Your task to perform on an android device: set an alarm Image 0: 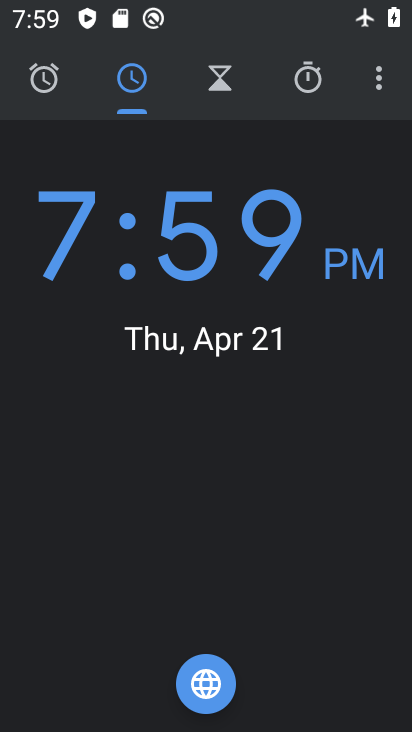
Step 0: click (31, 91)
Your task to perform on an android device: set an alarm Image 1: 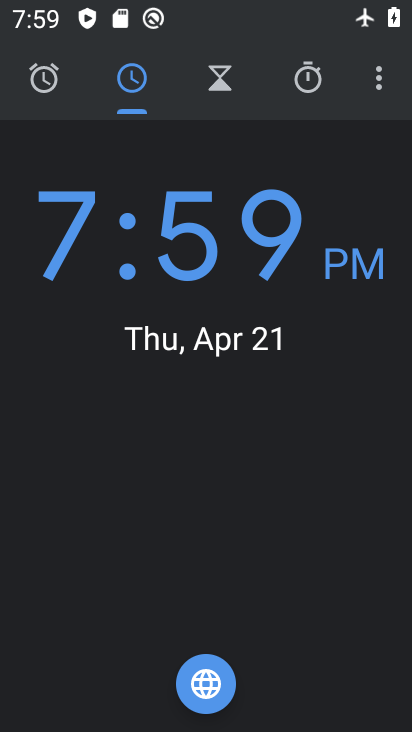
Step 1: click (47, 70)
Your task to perform on an android device: set an alarm Image 2: 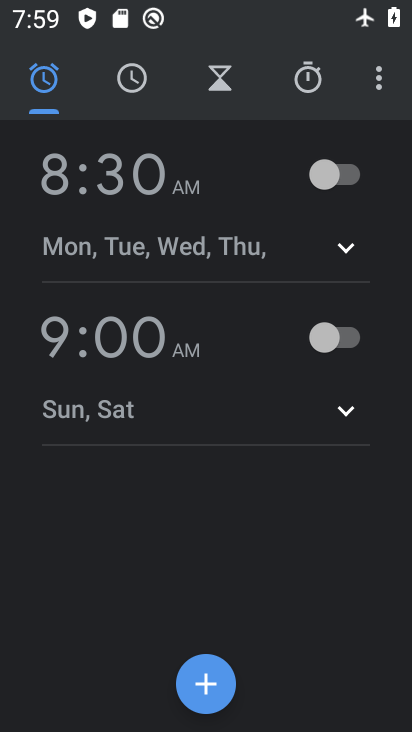
Step 2: click (329, 164)
Your task to perform on an android device: set an alarm Image 3: 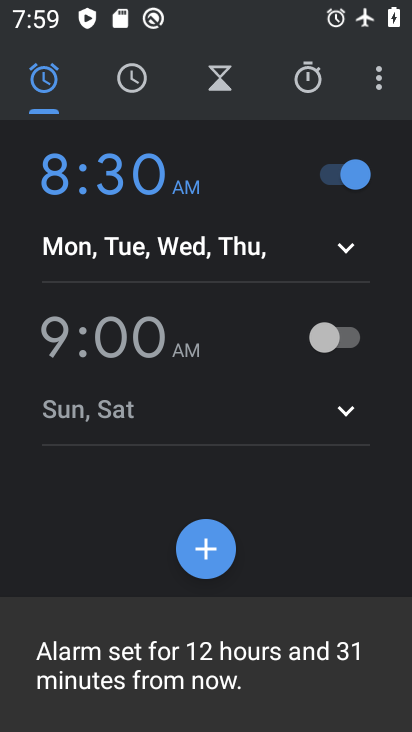
Step 3: task complete